Your task to perform on an android device: open app "Fetch Rewards" (install if not already installed) and enter user name: "Westwood@yahoo.com" and password: "qualifying" Image 0: 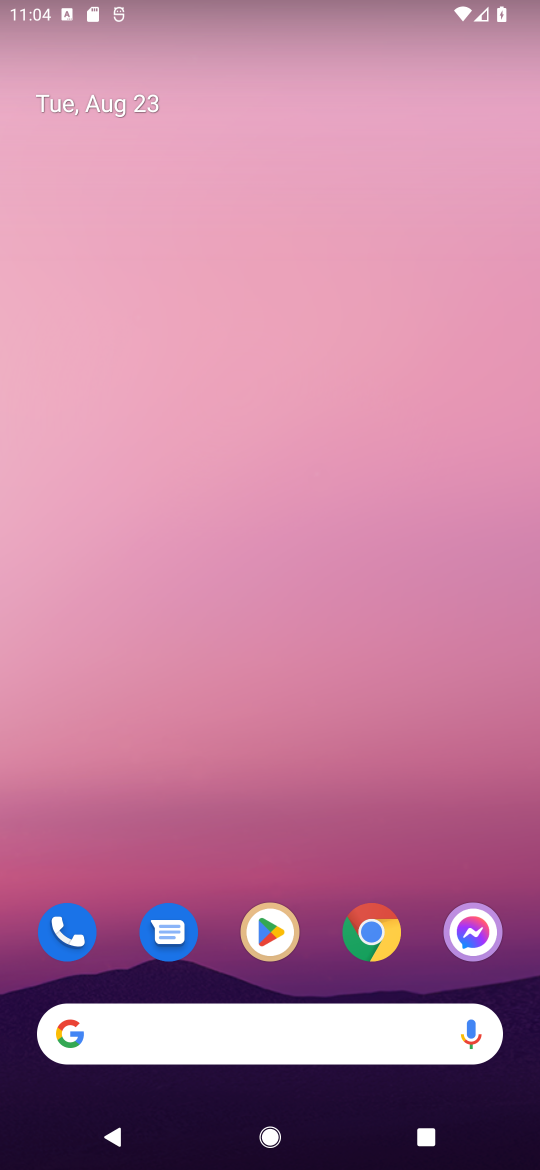
Step 0: click (290, 936)
Your task to perform on an android device: open app "Fetch Rewards" (install if not already installed) and enter user name: "Westwood@yahoo.com" and password: "qualifying" Image 1: 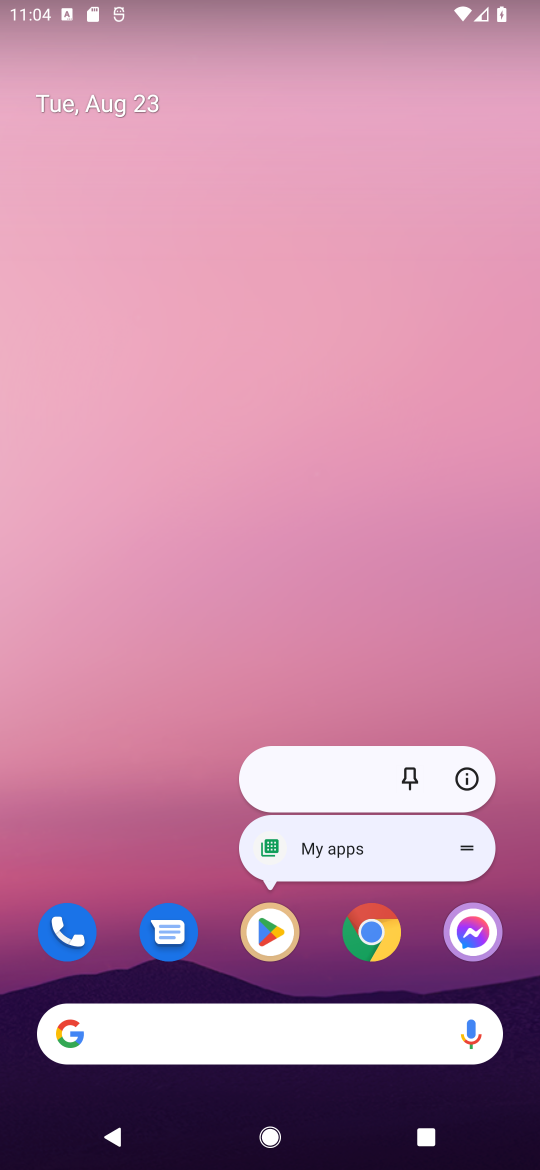
Step 1: click (258, 924)
Your task to perform on an android device: open app "Fetch Rewards" (install if not already installed) and enter user name: "Westwood@yahoo.com" and password: "qualifying" Image 2: 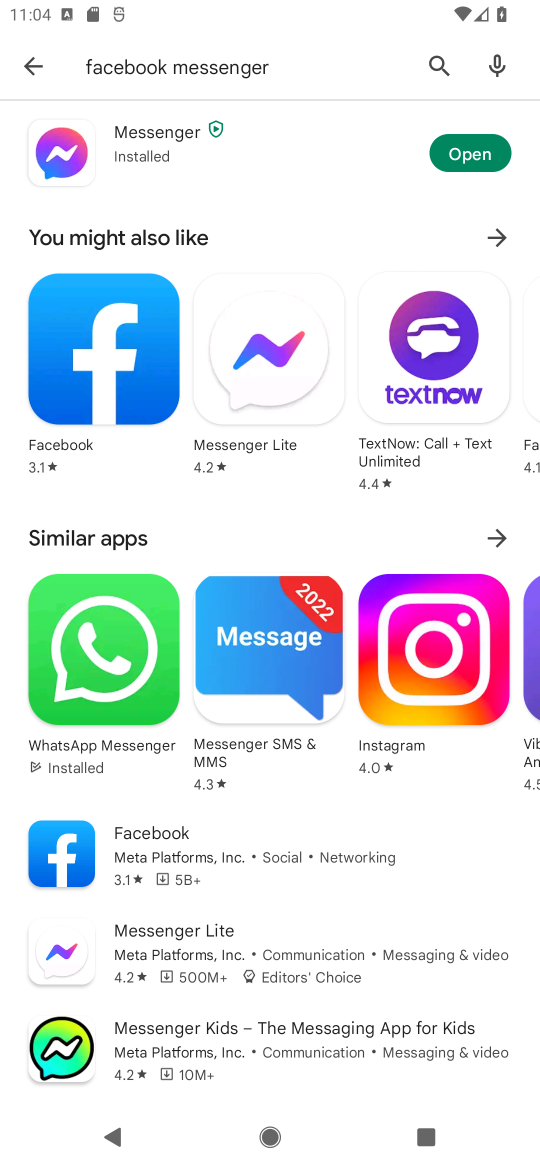
Step 2: click (441, 64)
Your task to perform on an android device: open app "Fetch Rewards" (install if not already installed) and enter user name: "Westwood@yahoo.com" and password: "qualifying" Image 3: 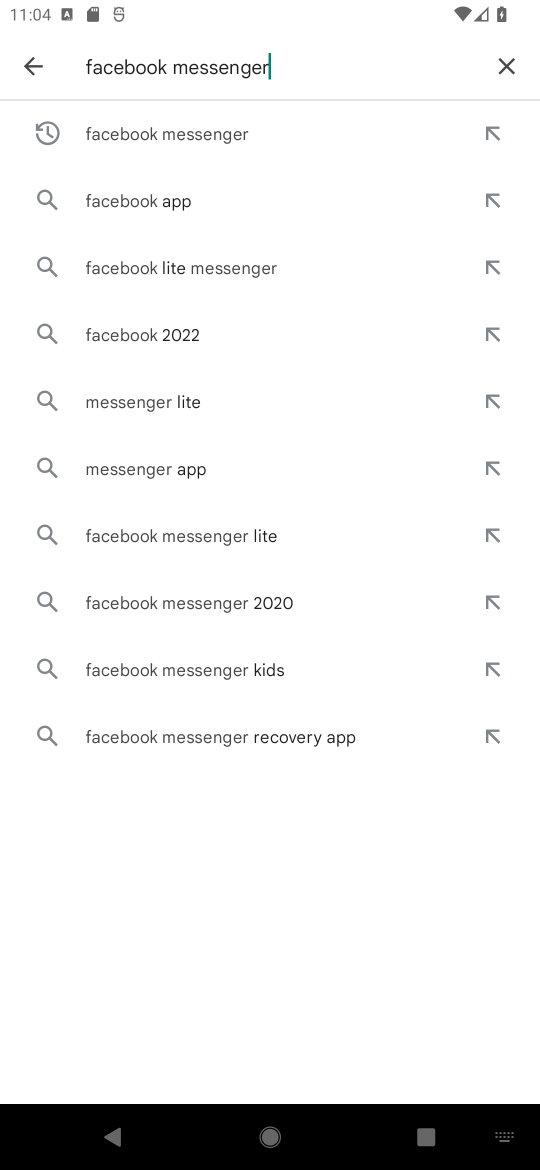
Step 3: click (507, 49)
Your task to perform on an android device: open app "Fetch Rewards" (install if not already installed) and enter user name: "Westwood@yahoo.com" and password: "qualifying" Image 4: 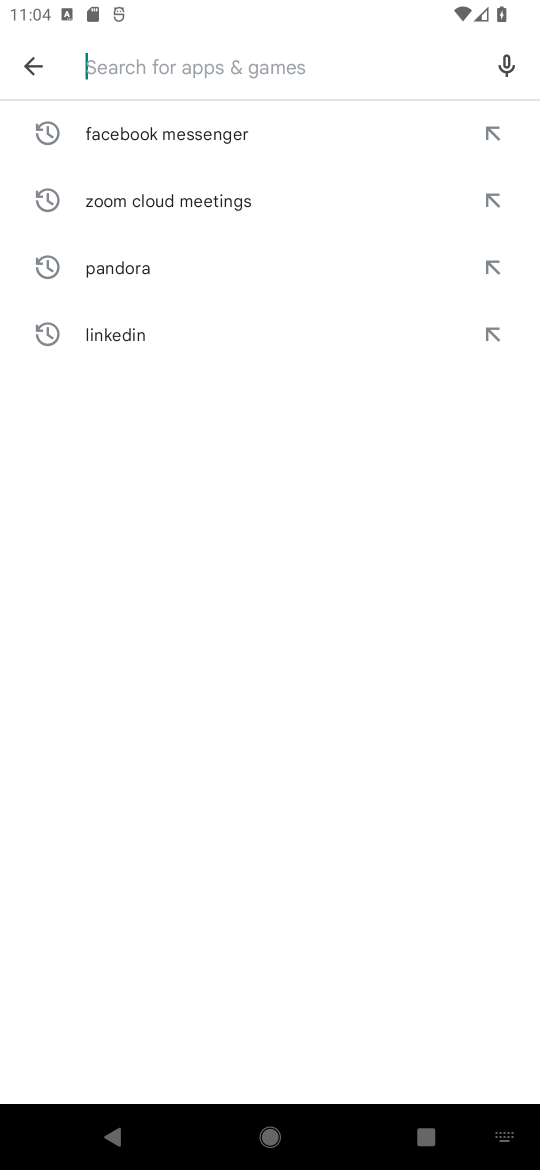
Step 4: click (109, 51)
Your task to perform on an android device: open app "Fetch Rewards" (install if not already installed) and enter user name: "Westwood@yahoo.com" and password: "qualifying" Image 5: 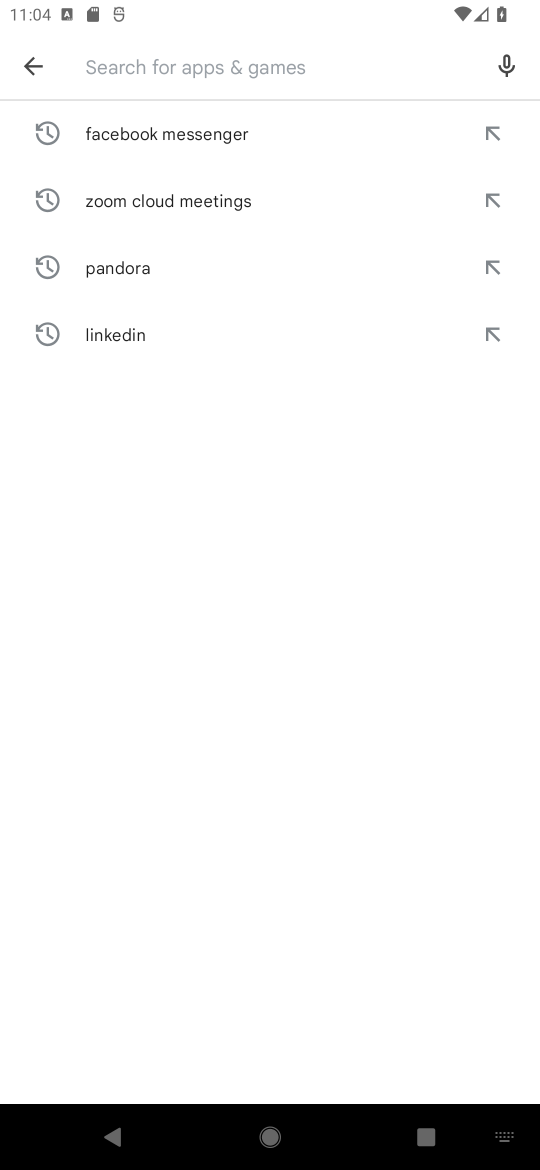
Step 5: type "Fetch Rewards"
Your task to perform on an android device: open app "Fetch Rewards" (install if not already installed) and enter user name: "Westwood@yahoo.com" and password: "qualifying" Image 6: 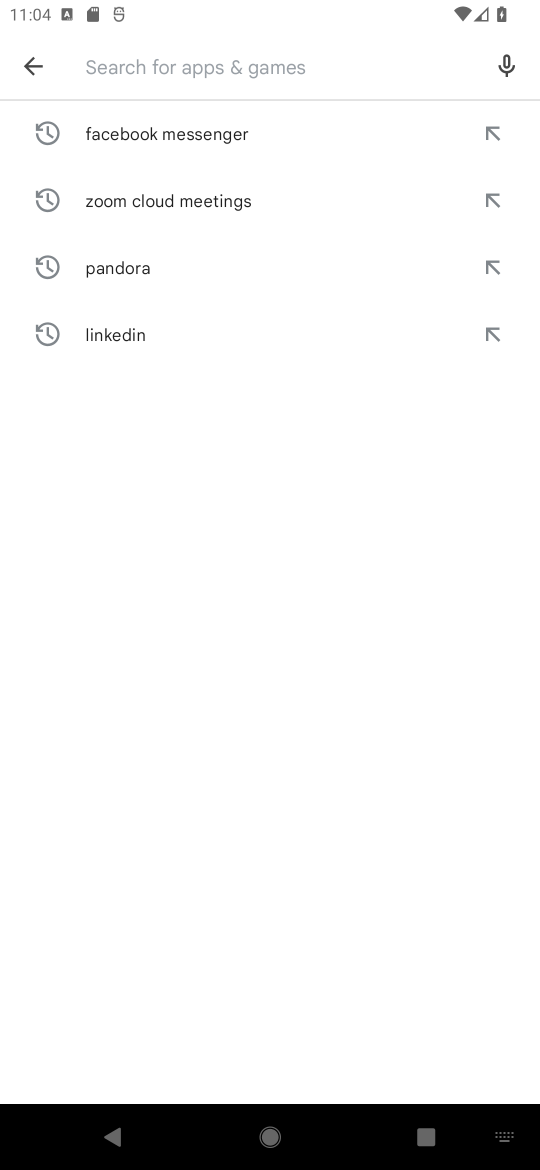
Step 6: click (261, 680)
Your task to perform on an android device: open app "Fetch Rewards" (install if not already installed) and enter user name: "Westwood@yahoo.com" and password: "qualifying" Image 7: 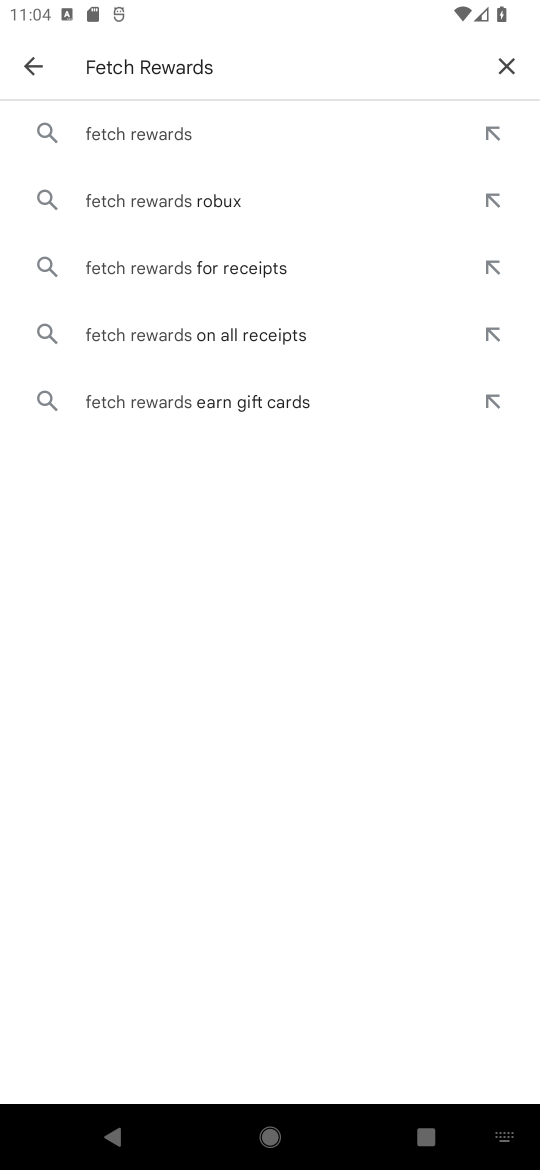
Step 7: click (152, 125)
Your task to perform on an android device: open app "Fetch Rewards" (install if not already installed) and enter user name: "Westwood@yahoo.com" and password: "qualifying" Image 8: 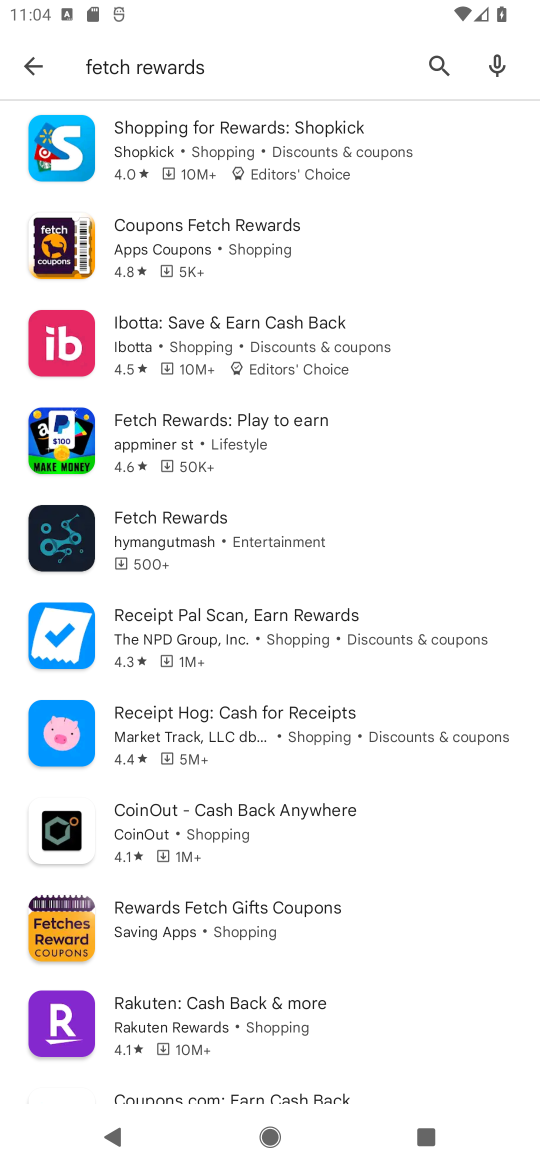
Step 8: click (197, 536)
Your task to perform on an android device: open app "Fetch Rewards" (install if not already installed) and enter user name: "Westwood@yahoo.com" and password: "qualifying" Image 9: 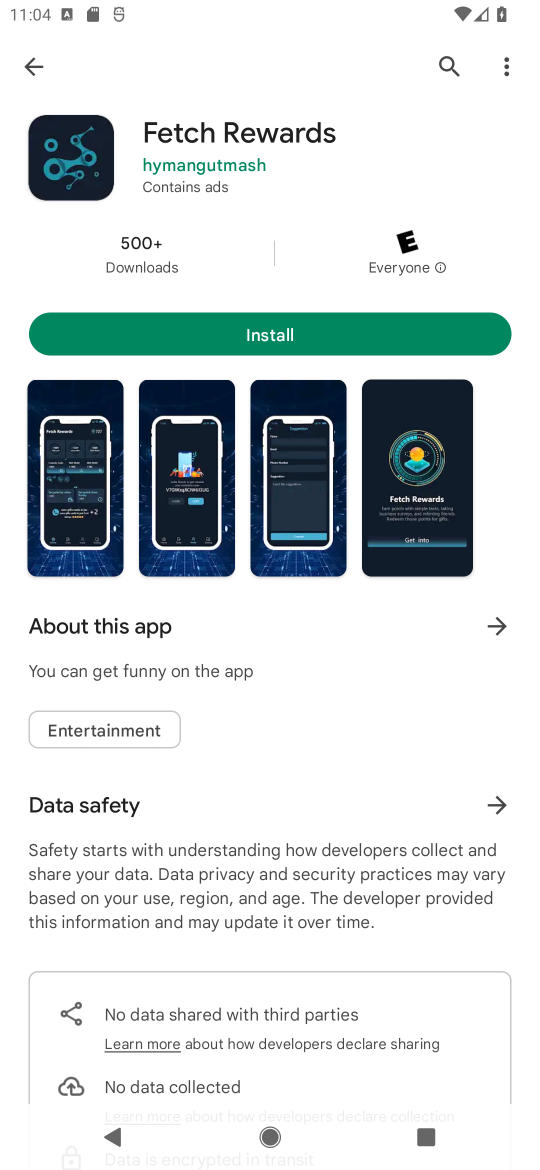
Step 9: click (242, 334)
Your task to perform on an android device: open app "Fetch Rewards" (install if not already installed) and enter user name: "Westwood@yahoo.com" and password: "qualifying" Image 10: 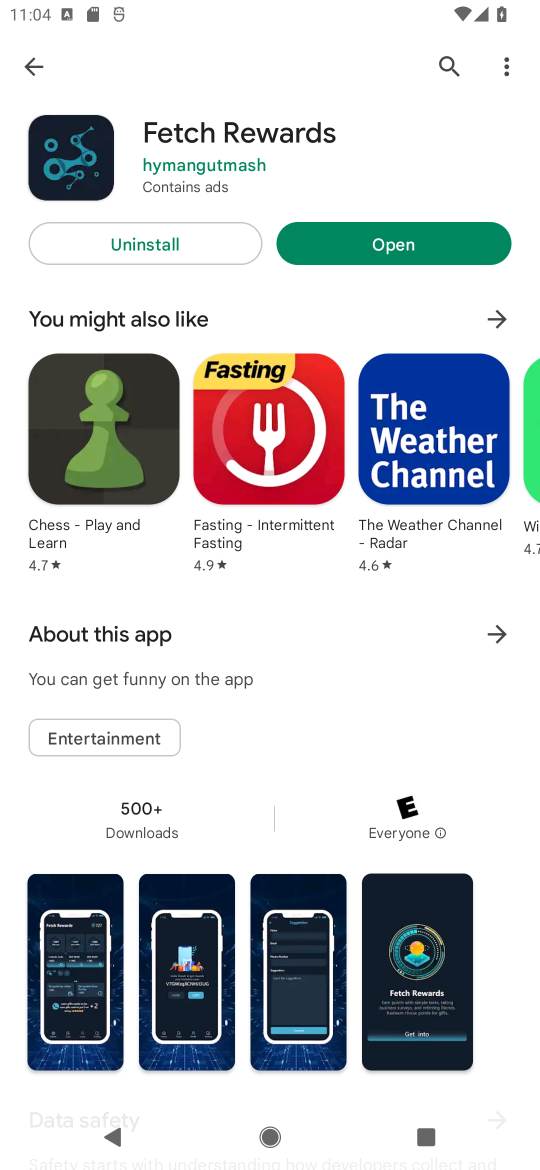
Step 10: click (439, 248)
Your task to perform on an android device: open app "Fetch Rewards" (install if not already installed) and enter user name: "Westwood@yahoo.com" and password: "qualifying" Image 11: 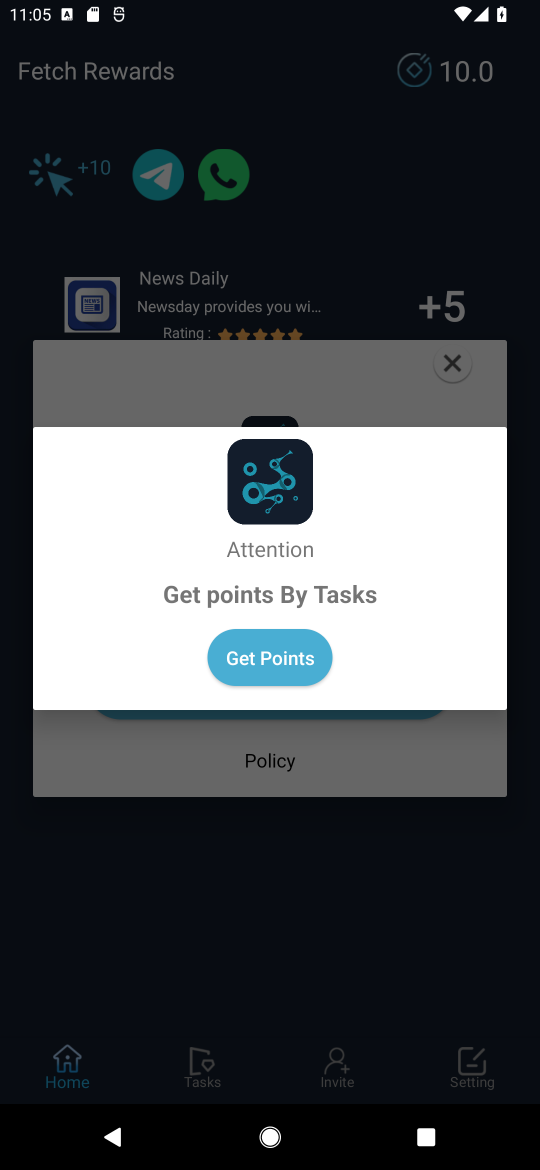
Step 11: click (451, 368)
Your task to perform on an android device: open app "Fetch Rewards" (install if not already installed) and enter user name: "Westwood@yahoo.com" and password: "qualifying" Image 12: 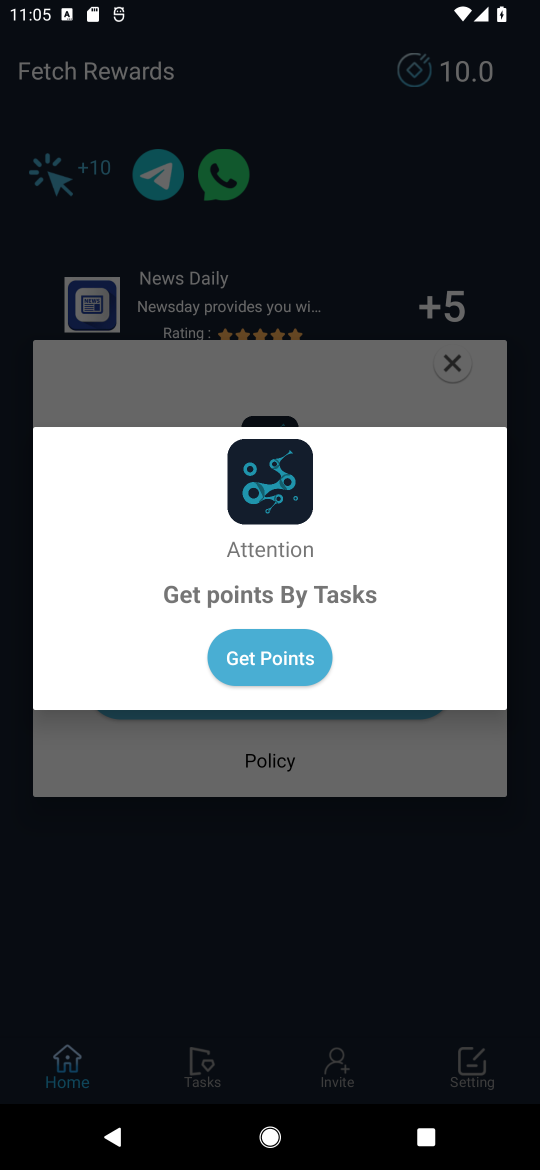
Step 12: click (276, 658)
Your task to perform on an android device: open app "Fetch Rewards" (install if not already installed) and enter user name: "Westwood@yahoo.com" and password: "qualifying" Image 13: 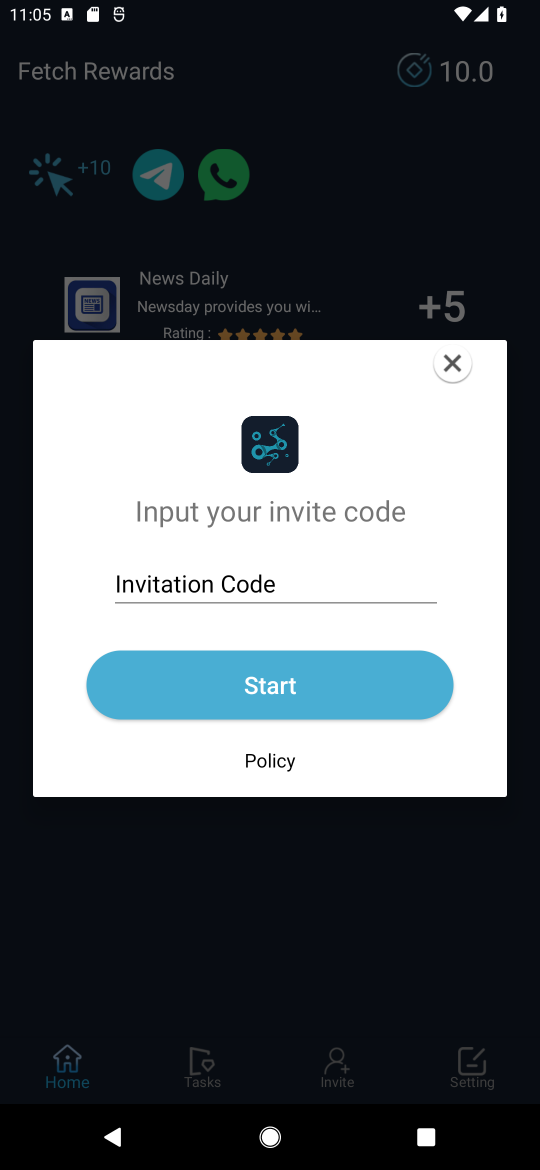
Step 13: click (444, 367)
Your task to perform on an android device: open app "Fetch Rewards" (install if not already installed) and enter user name: "Westwood@yahoo.com" and password: "qualifying" Image 14: 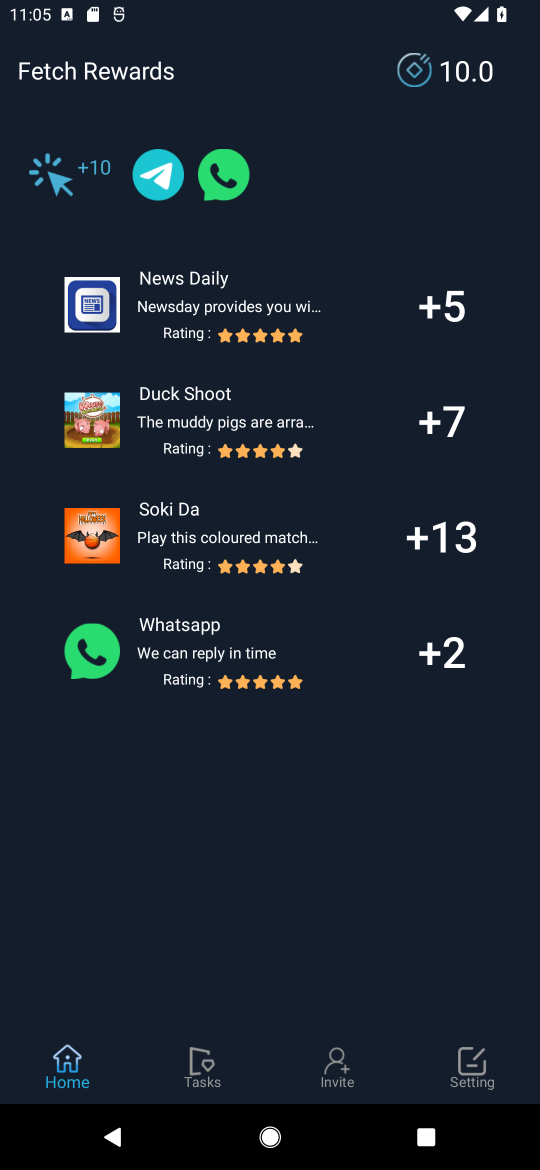
Step 14: click (416, 60)
Your task to perform on an android device: open app "Fetch Rewards" (install if not already installed) and enter user name: "Westwood@yahoo.com" and password: "qualifying" Image 15: 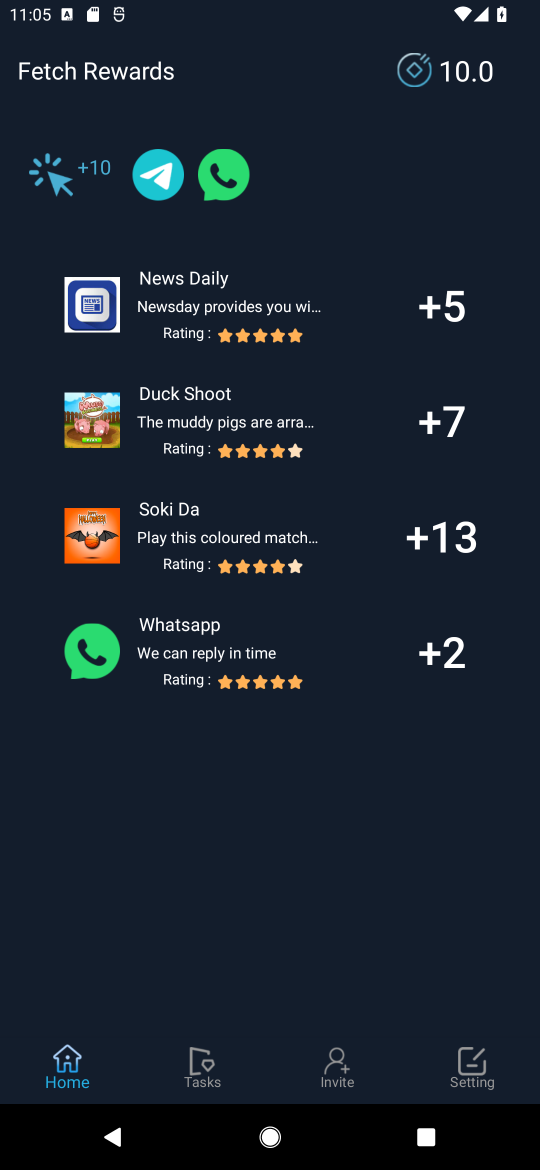
Step 15: click (459, 1074)
Your task to perform on an android device: open app "Fetch Rewards" (install if not already installed) and enter user name: "Westwood@yahoo.com" and password: "qualifying" Image 16: 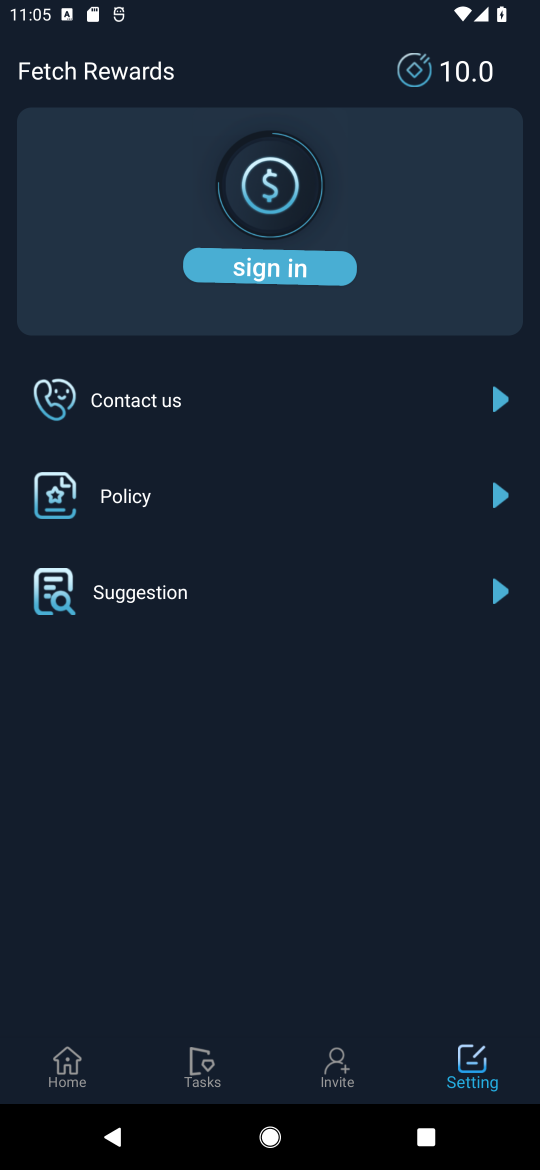
Step 16: click (287, 267)
Your task to perform on an android device: open app "Fetch Rewards" (install if not already installed) and enter user name: "Westwood@yahoo.com" and password: "qualifying" Image 17: 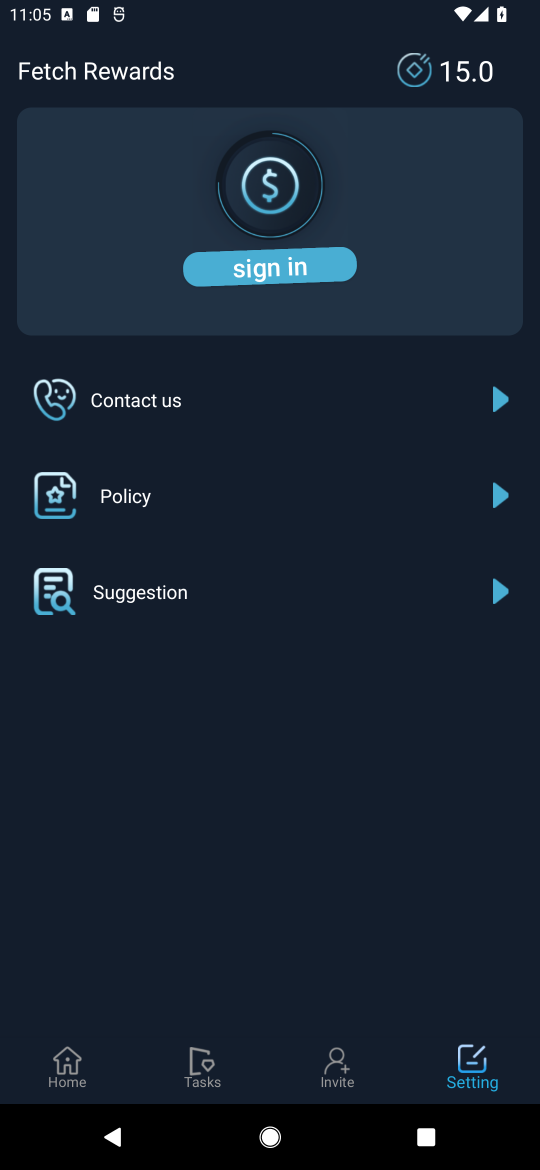
Step 17: click (272, 270)
Your task to perform on an android device: open app "Fetch Rewards" (install if not already installed) and enter user name: "Westwood@yahoo.com" and password: "qualifying" Image 18: 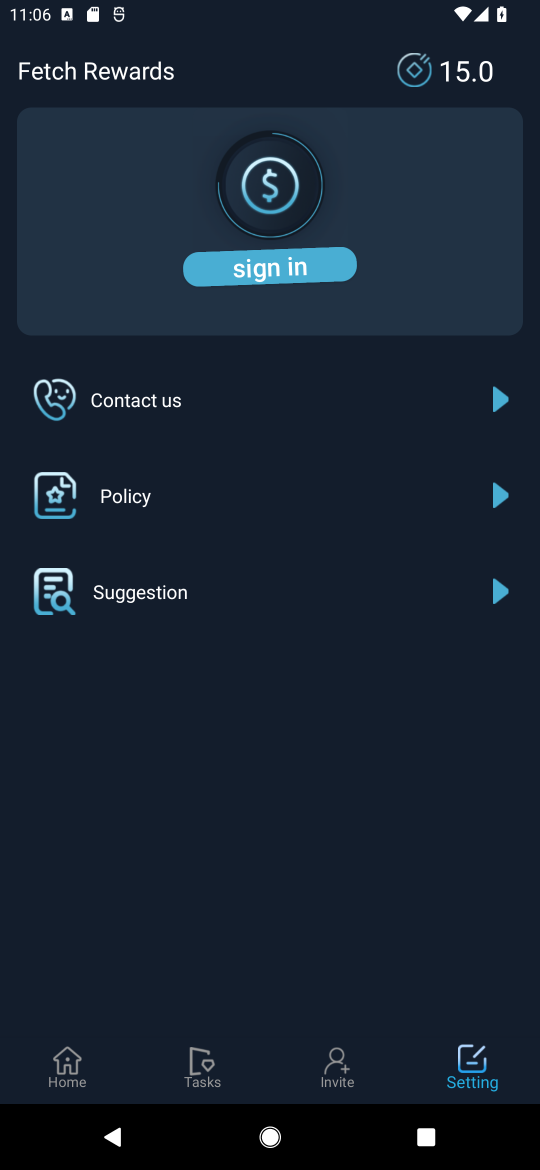
Step 18: click (271, 267)
Your task to perform on an android device: open app "Fetch Rewards" (install if not already installed) and enter user name: "Westwood@yahoo.com" and password: "qualifying" Image 19: 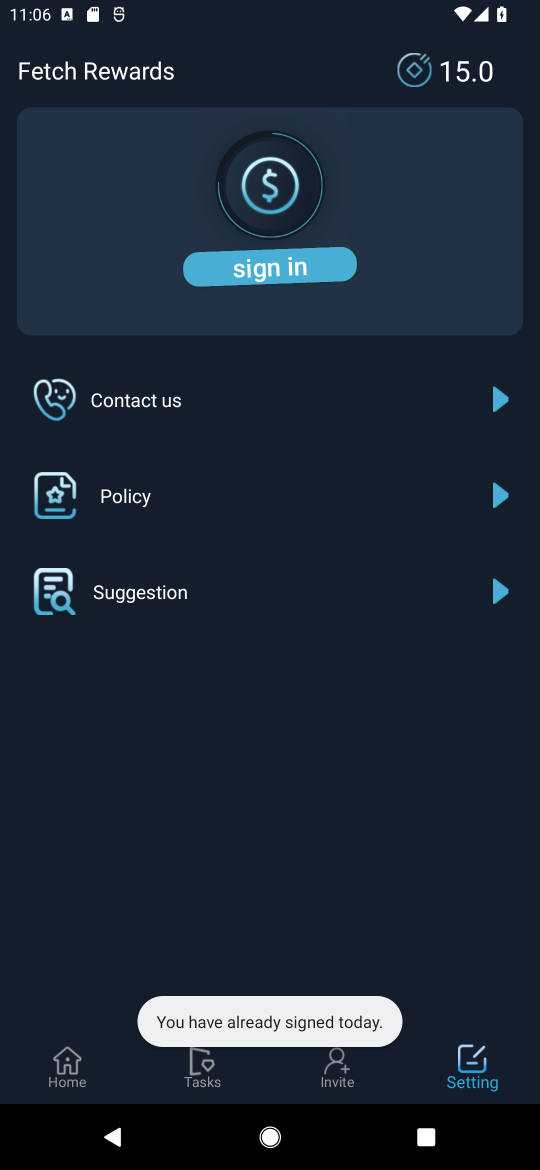
Step 19: click (271, 267)
Your task to perform on an android device: open app "Fetch Rewards" (install if not already installed) and enter user name: "Westwood@yahoo.com" and password: "qualifying" Image 20: 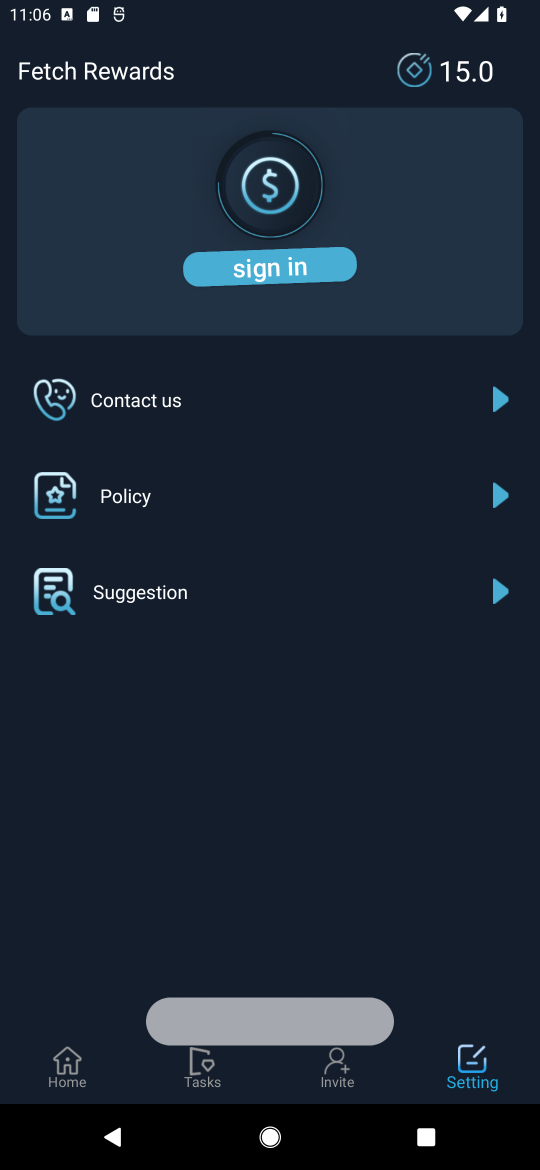
Step 20: task complete